Your task to perform on an android device: What's the weather today? Image 0: 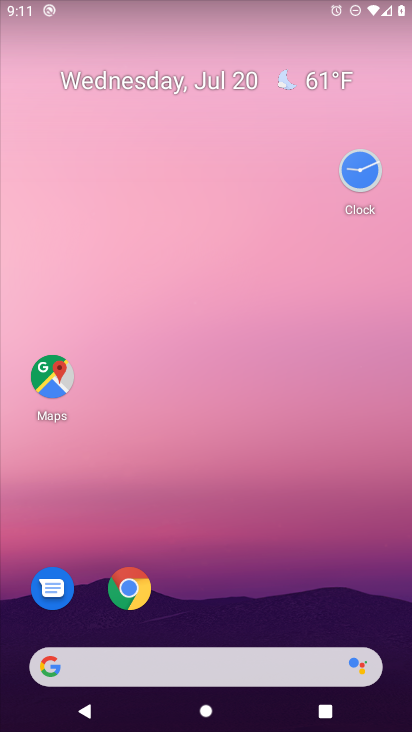
Step 0: click (87, 648)
Your task to perform on an android device: What's the weather today? Image 1: 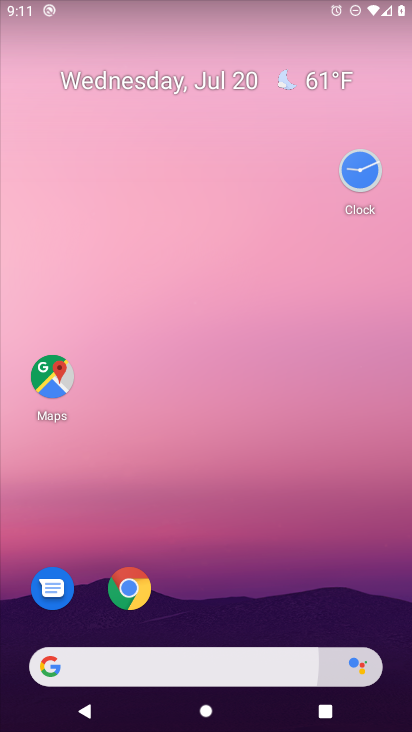
Step 1: click (75, 677)
Your task to perform on an android device: What's the weather today? Image 2: 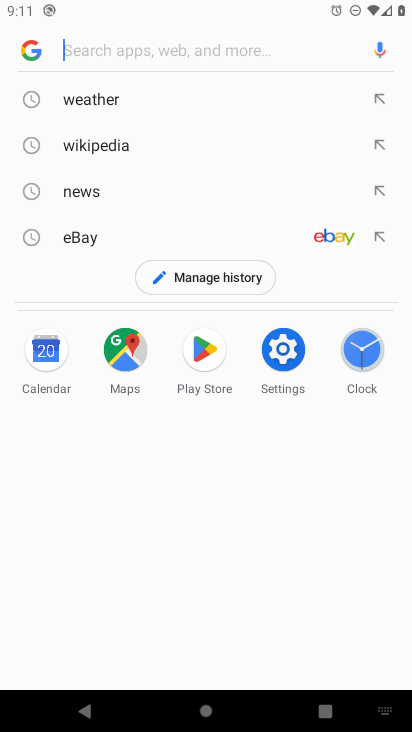
Step 2: type "What's the weather today?"
Your task to perform on an android device: What's the weather today? Image 3: 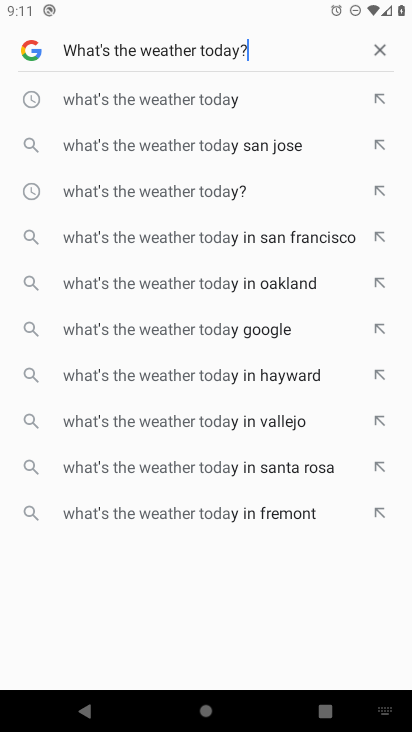
Step 3: type ""
Your task to perform on an android device: What's the weather today? Image 4: 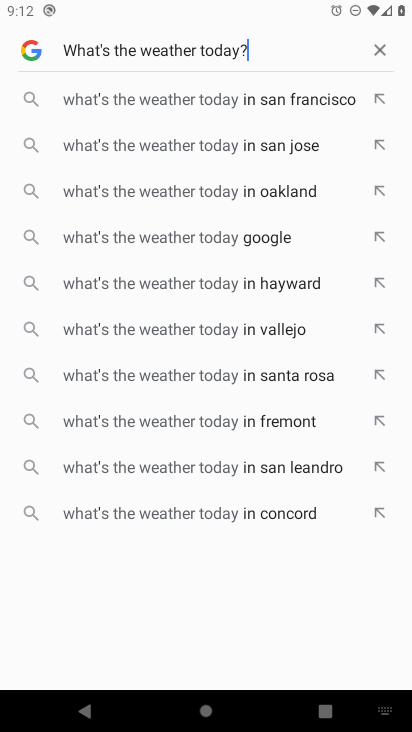
Step 4: type ""
Your task to perform on an android device: What's the weather today? Image 5: 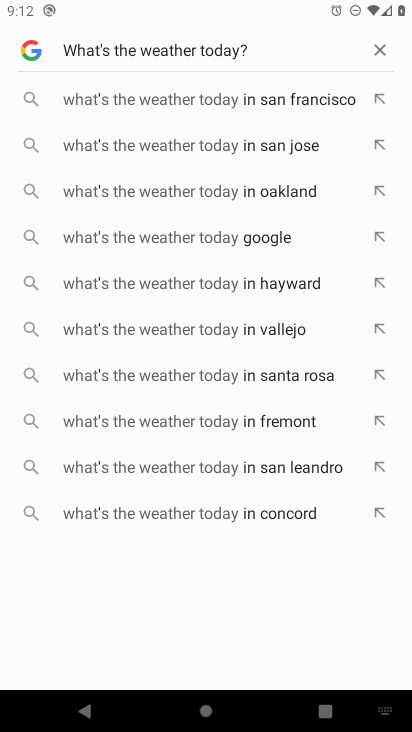
Step 5: type ""
Your task to perform on an android device: What's the weather today? Image 6: 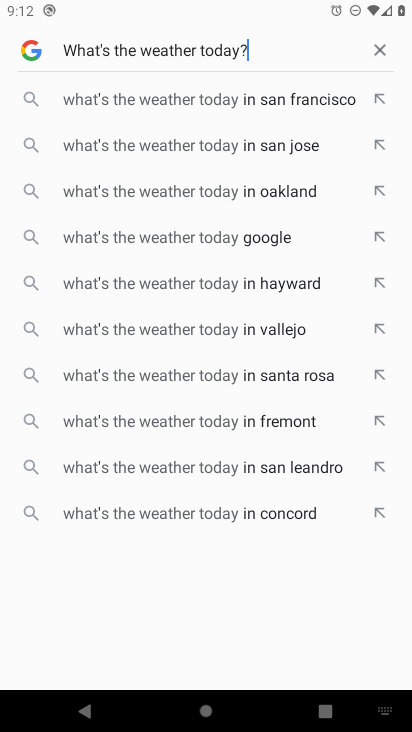
Step 6: task complete